Your task to perform on an android device: Show me popular videos on Youtube Image 0: 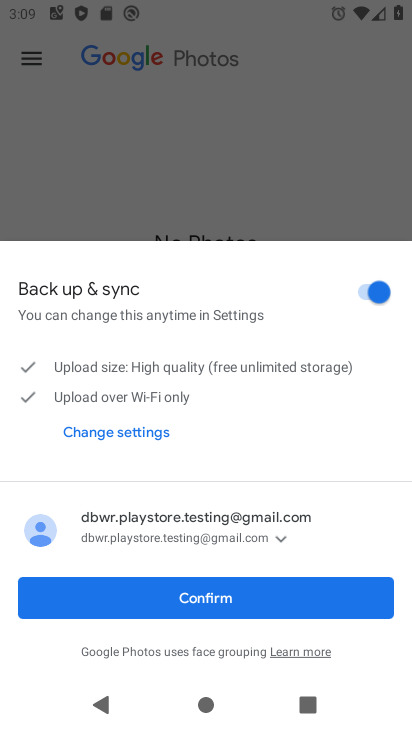
Step 0: press home button
Your task to perform on an android device: Show me popular videos on Youtube Image 1: 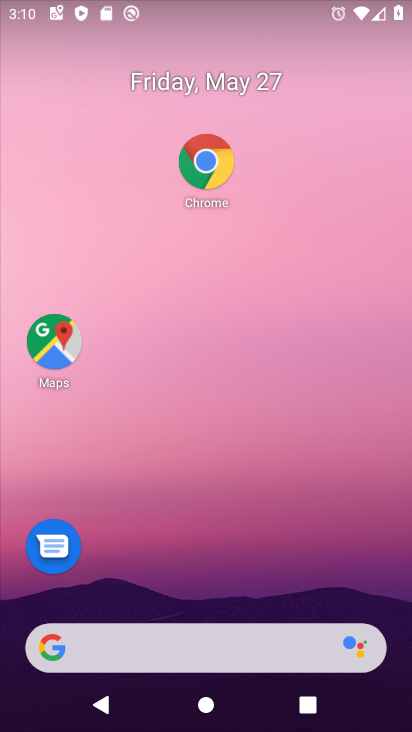
Step 1: drag from (243, 542) to (331, 117)
Your task to perform on an android device: Show me popular videos on Youtube Image 2: 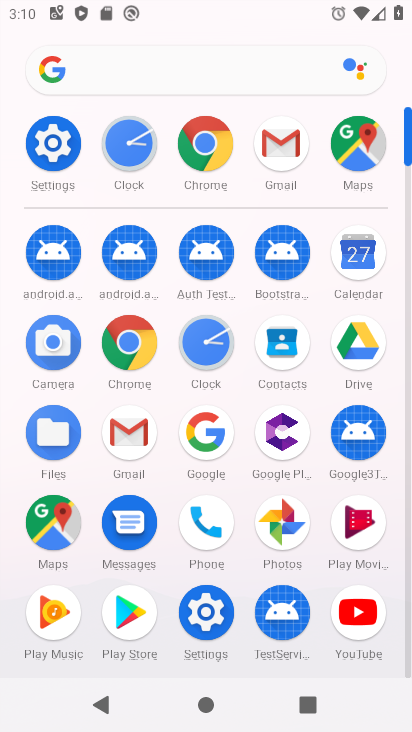
Step 2: click (363, 615)
Your task to perform on an android device: Show me popular videos on Youtube Image 3: 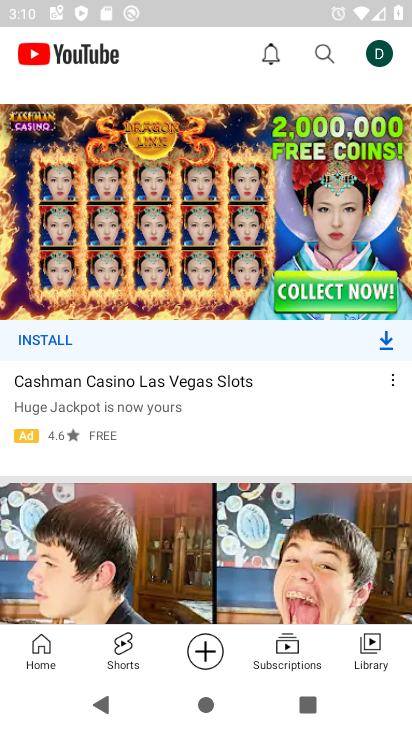
Step 3: click (327, 39)
Your task to perform on an android device: Show me popular videos on Youtube Image 4: 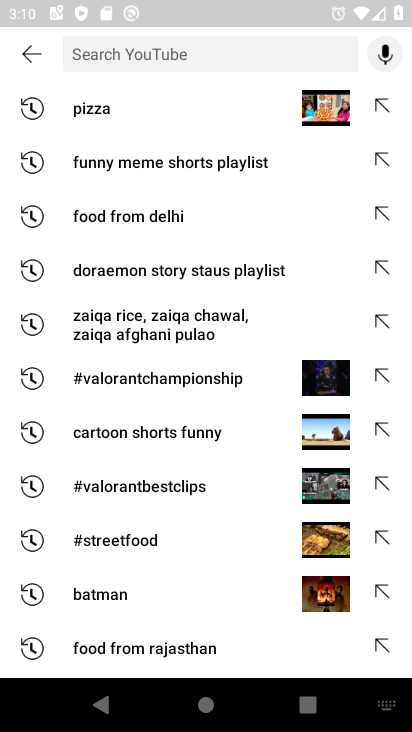
Step 4: type "popular videos "
Your task to perform on an android device: Show me popular videos on Youtube Image 5: 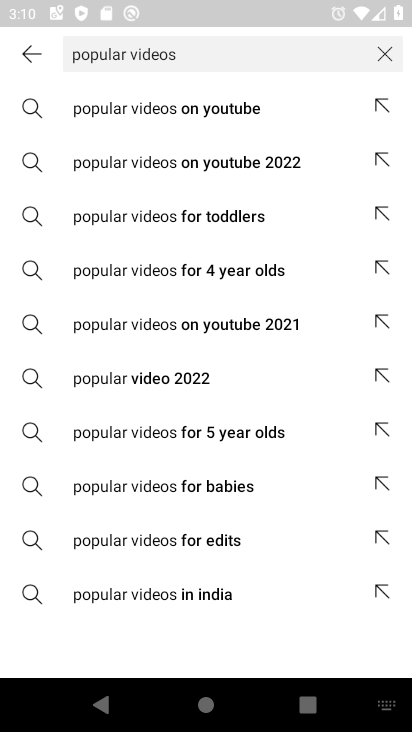
Step 5: click (207, 119)
Your task to perform on an android device: Show me popular videos on Youtube Image 6: 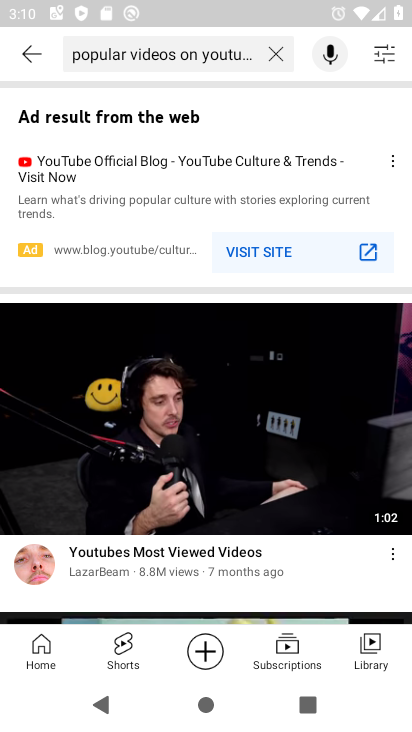
Step 6: task complete